Your task to perform on an android device: show emergency info Image 0: 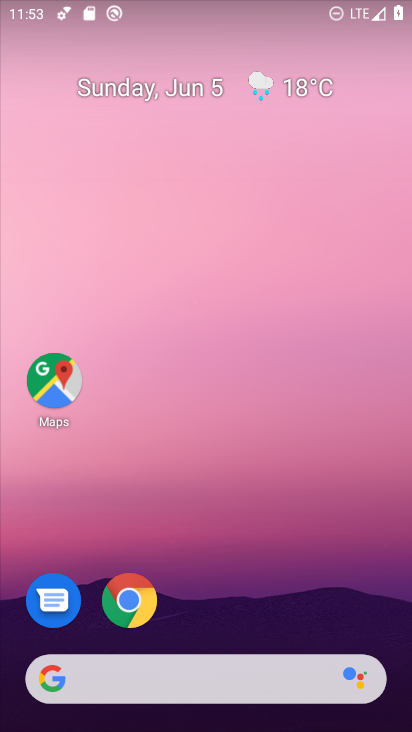
Step 0: drag from (187, 634) to (193, 218)
Your task to perform on an android device: show emergency info Image 1: 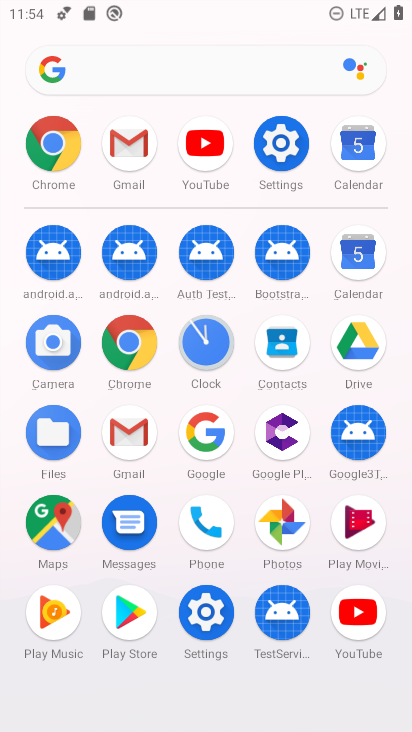
Step 1: click (268, 143)
Your task to perform on an android device: show emergency info Image 2: 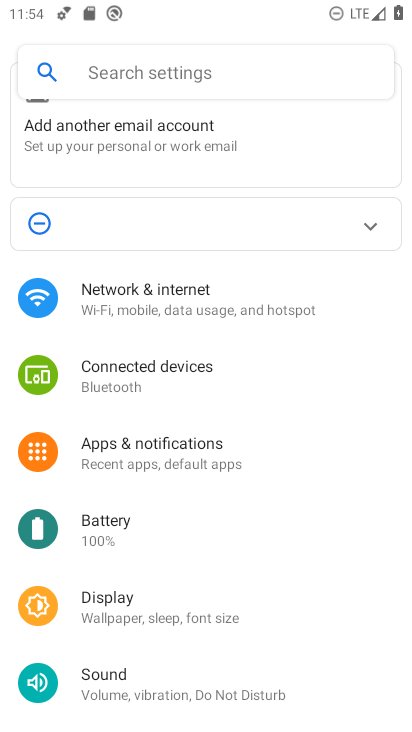
Step 2: drag from (248, 639) to (257, 169)
Your task to perform on an android device: show emergency info Image 3: 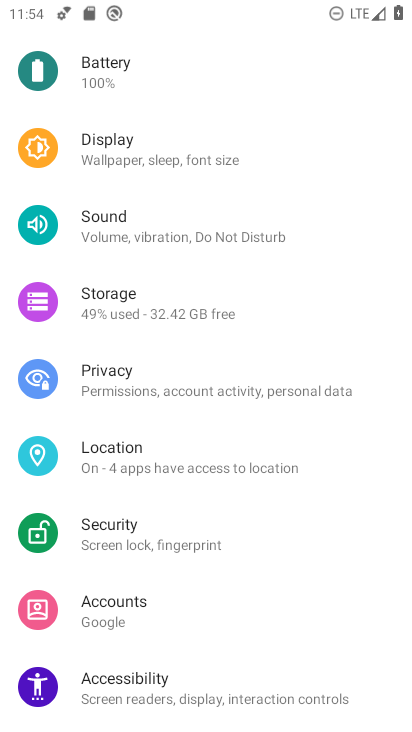
Step 3: drag from (214, 605) to (240, 188)
Your task to perform on an android device: show emergency info Image 4: 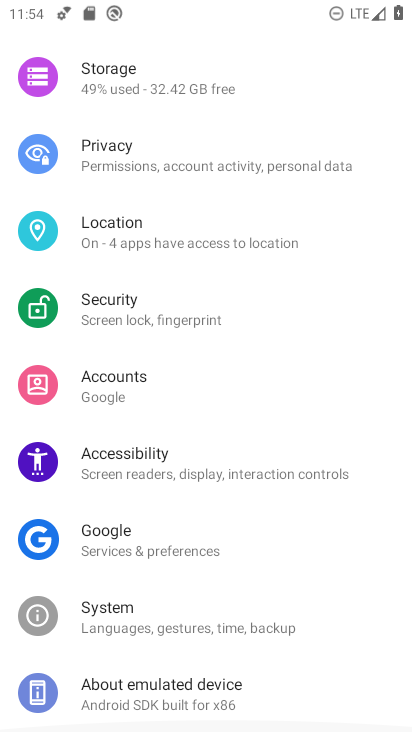
Step 4: drag from (164, 592) to (175, 181)
Your task to perform on an android device: show emergency info Image 5: 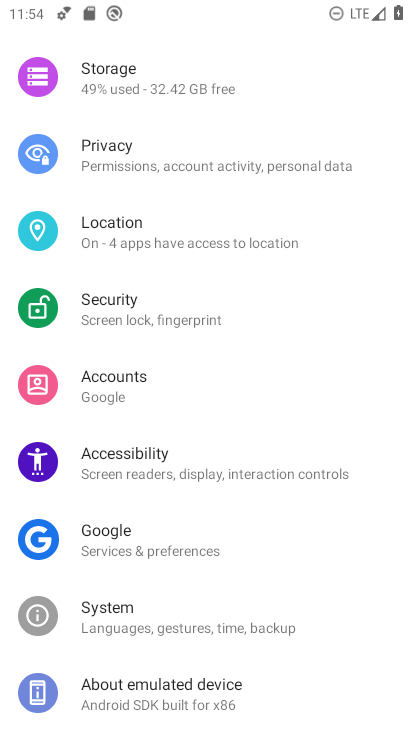
Step 5: click (165, 672)
Your task to perform on an android device: show emergency info Image 6: 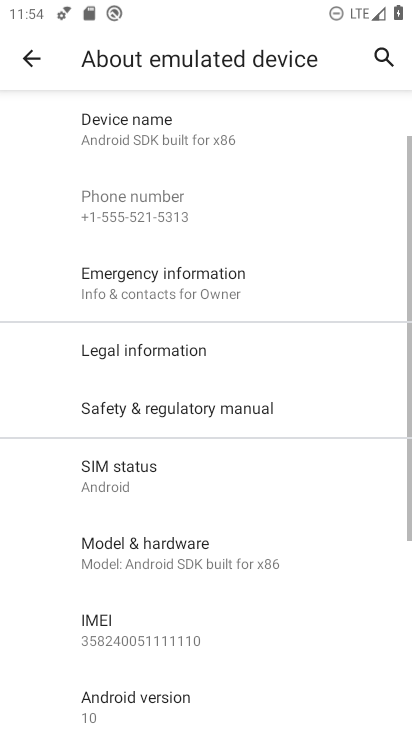
Step 6: click (163, 283)
Your task to perform on an android device: show emergency info Image 7: 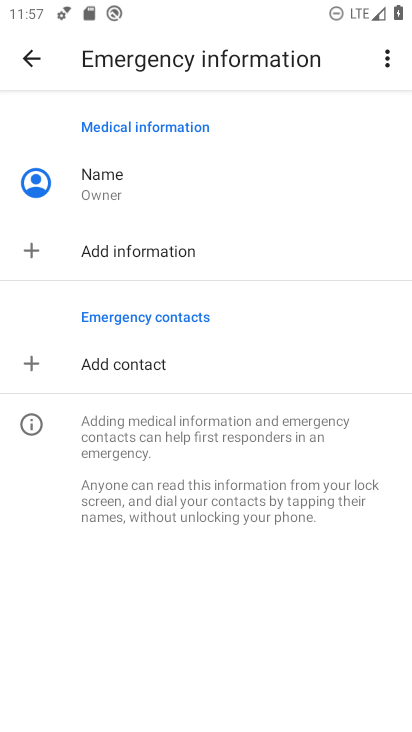
Step 7: task complete